Your task to perform on an android device: change the upload size in google photos Image 0: 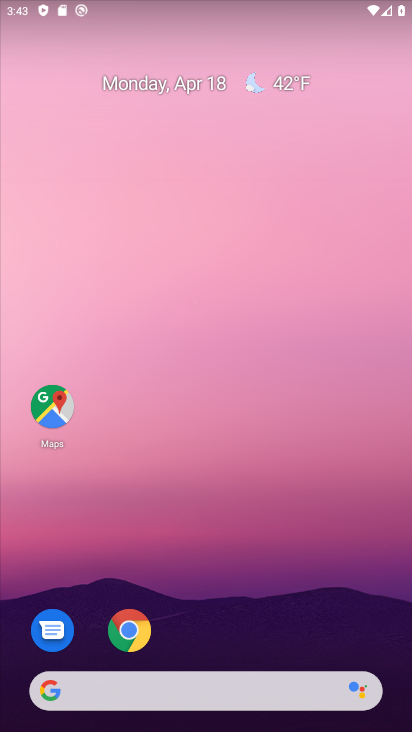
Step 0: drag from (159, 652) to (243, 178)
Your task to perform on an android device: change the upload size in google photos Image 1: 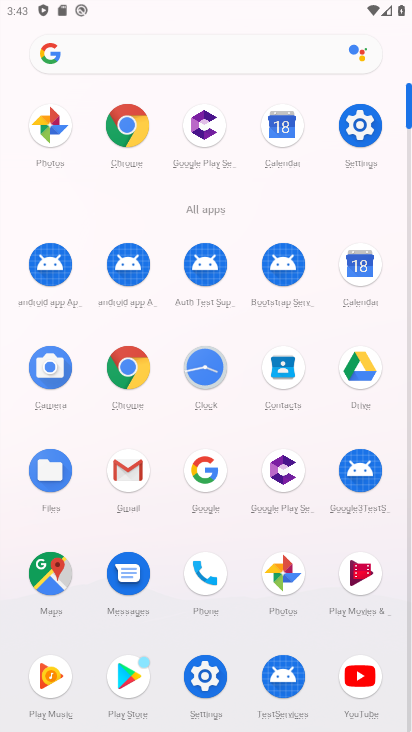
Step 1: click (46, 130)
Your task to perform on an android device: change the upload size in google photos Image 2: 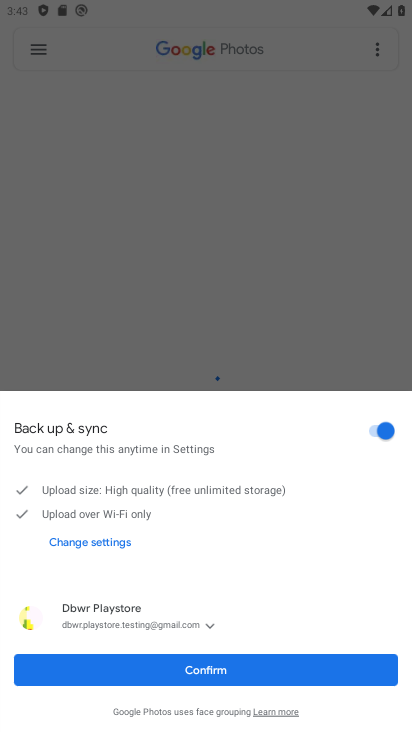
Step 2: click (230, 674)
Your task to perform on an android device: change the upload size in google photos Image 3: 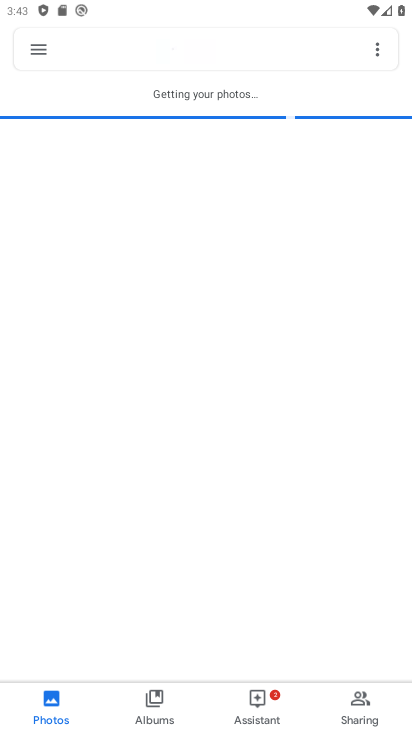
Step 3: click (42, 46)
Your task to perform on an android device: change the upload size in google photos Image 4: 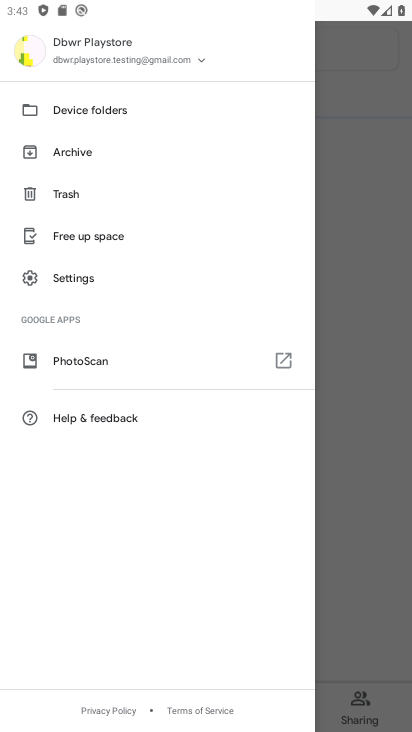
Step 4: click (112, 275)
Your task to perform on an android device: change the upload size in google photos Image 5: 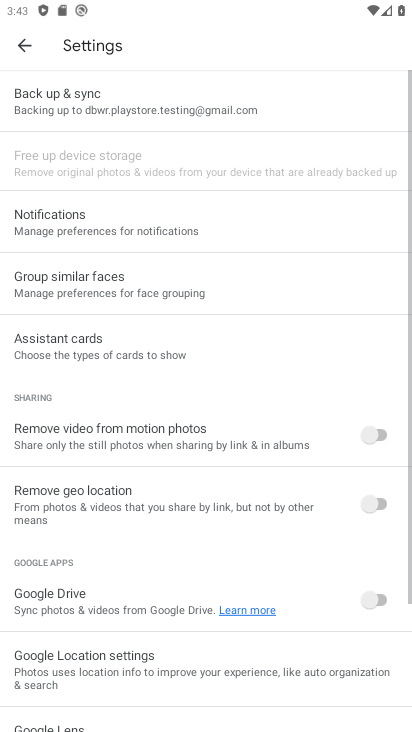
Step 5: click (141, 107)
Your task to perform on an android device: change the upload size in google photos Image 6: 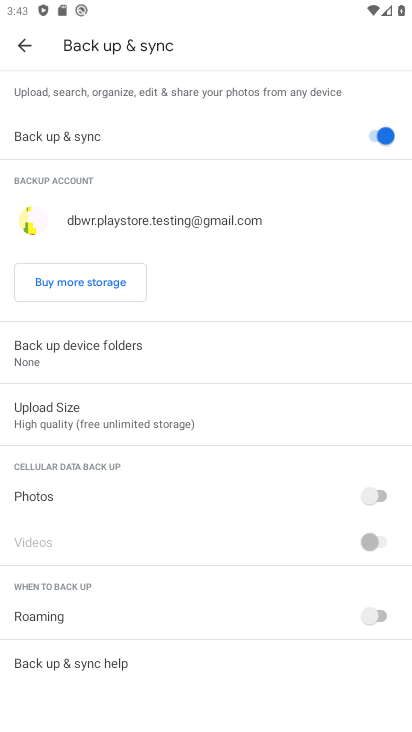
Step 6: click (129, 423)
Your task to perform on an android device: change the upload size in google photos Image 7: 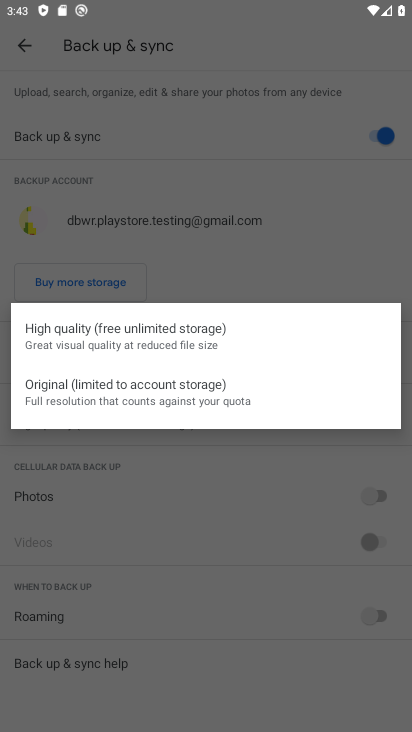
Step 7: click (151, 401)
Your task to perform on an android device: change the upload size in google photos Image 8: 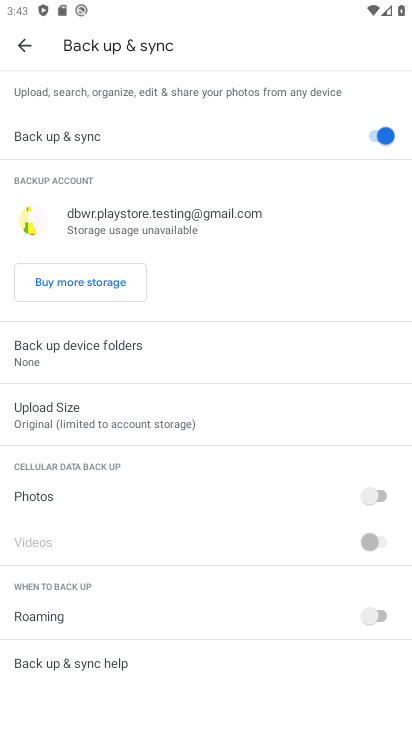
Step 8: task complete